Your task to perform on an android device: Open notification settings Image 0: 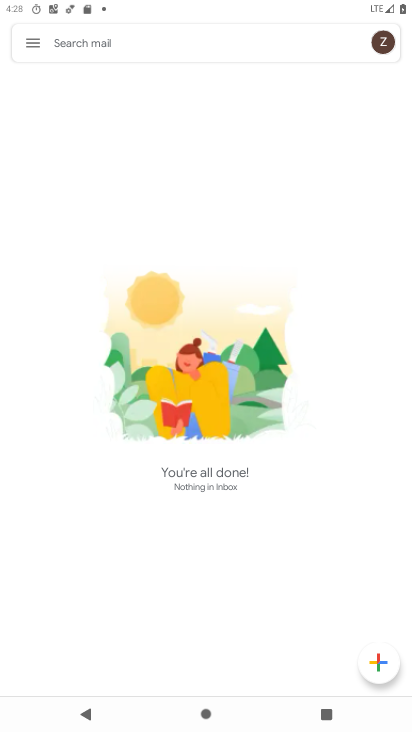
Step 0: press home button
Your task to perform on an android device: Open notification settings Image 1: 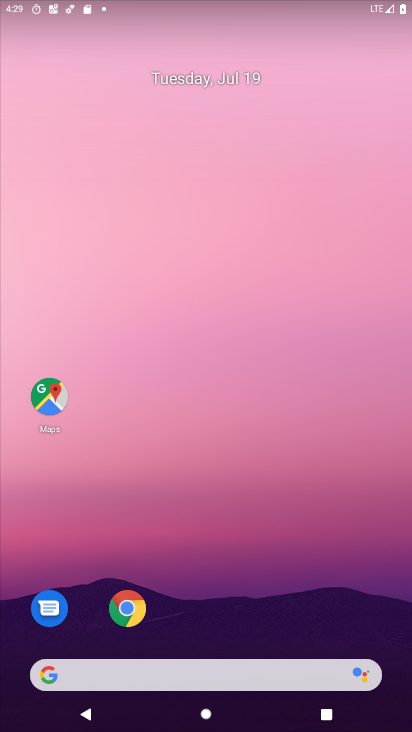
Step 1: drag from (220, 673) to (229, 12)
Your task to perform on an android device: Open notification settings Image 2: 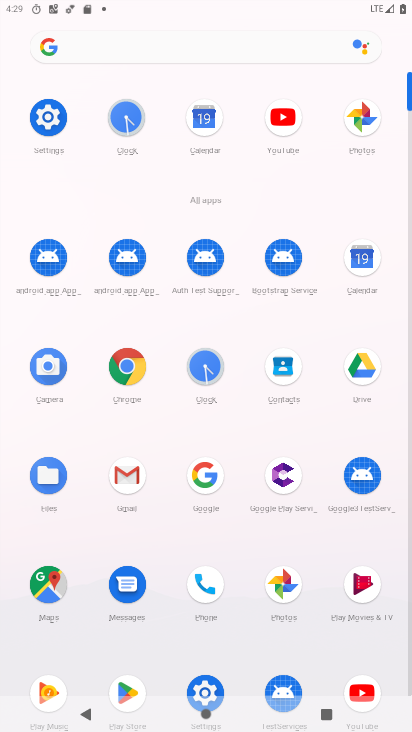
Step 2: click (47, 116)
Your task to perform on an android device: Open notification settings Image 3: 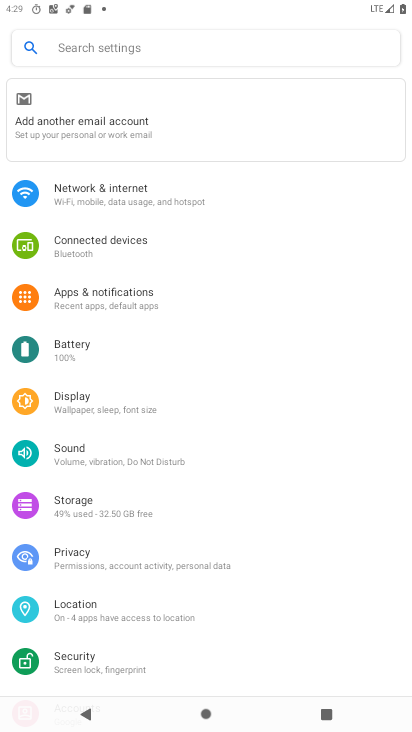
Step 3: click (89, 299)
Your task to perform on an android device: Open notification settings Image 4: 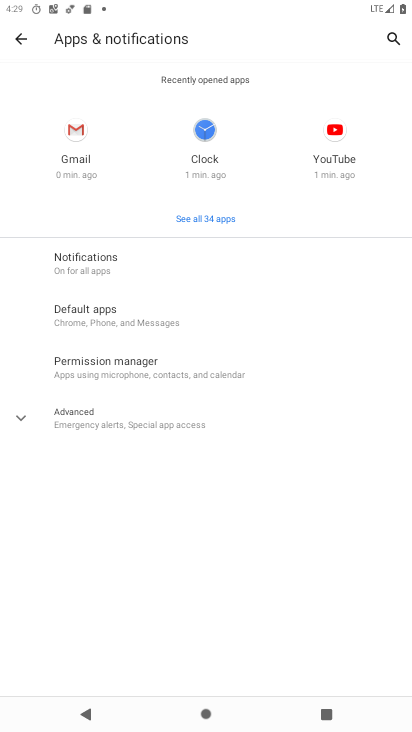
Step 4: click (86, 258)
Your task to perform on an android device: Open notification settings Image 5: 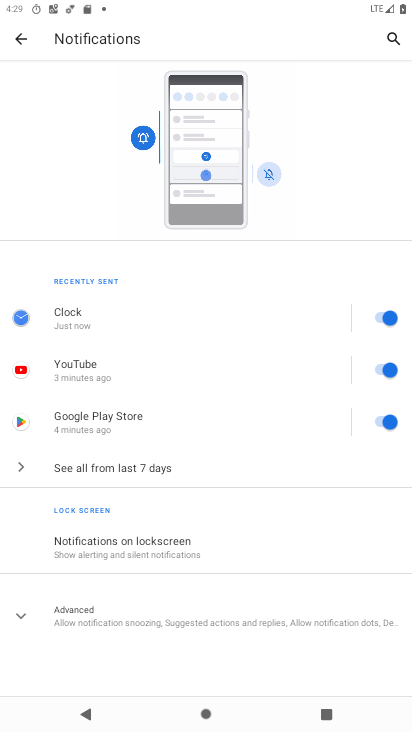
Step 5: task complete